Your task to perform on an android device: uninstall "Gmail" Image 0: 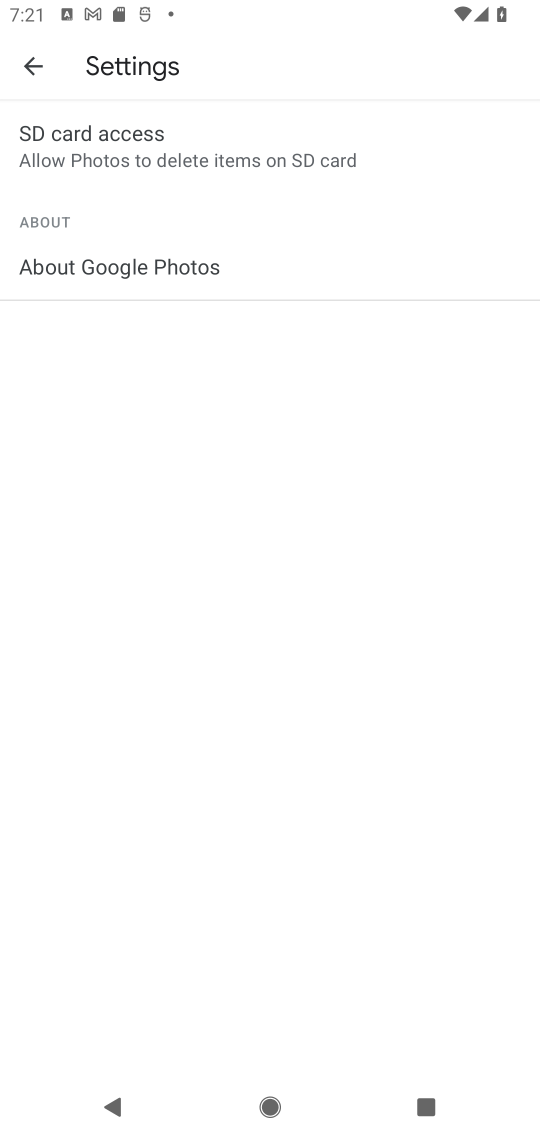
Step 0: press back button
Your task to perform on an android device: uninstall "Gmail" Image 1: 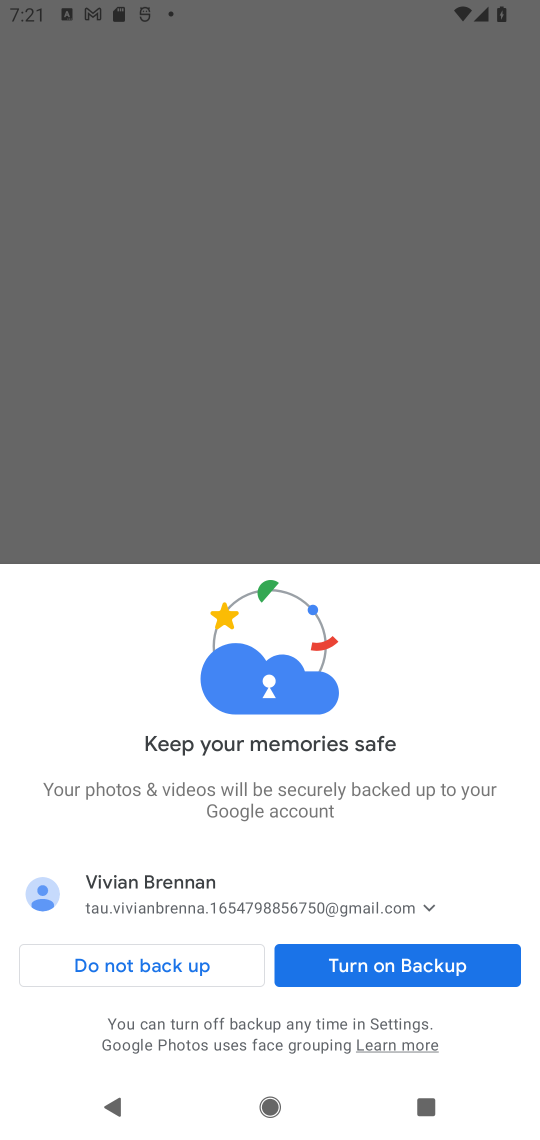
Step 1: press back button
Your task to perform on an android device: uninstall "Gmail" Image 2: 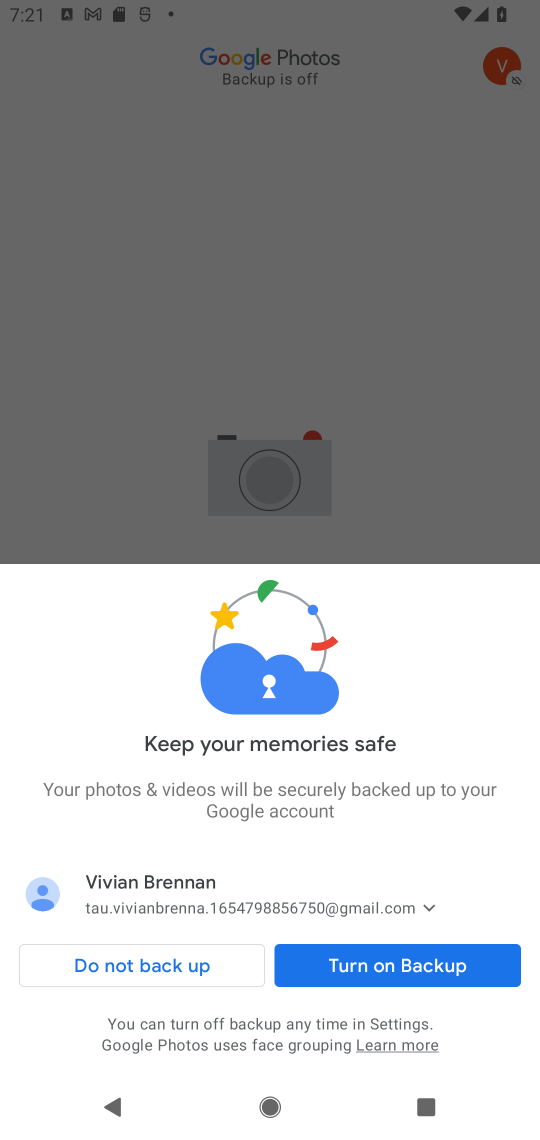
Step 2: press home button
Your task to perform on an android device: uninstall "Gmail" Image 3: 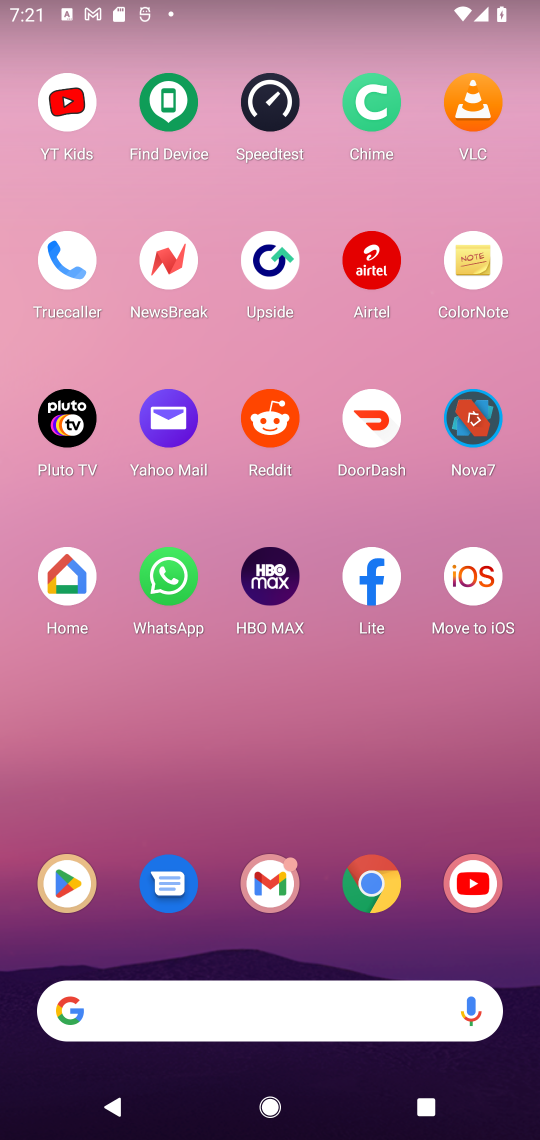
Step 3: click (87, 880)
Your task to perform on an android device: uninstall "Gmail" Image 4: 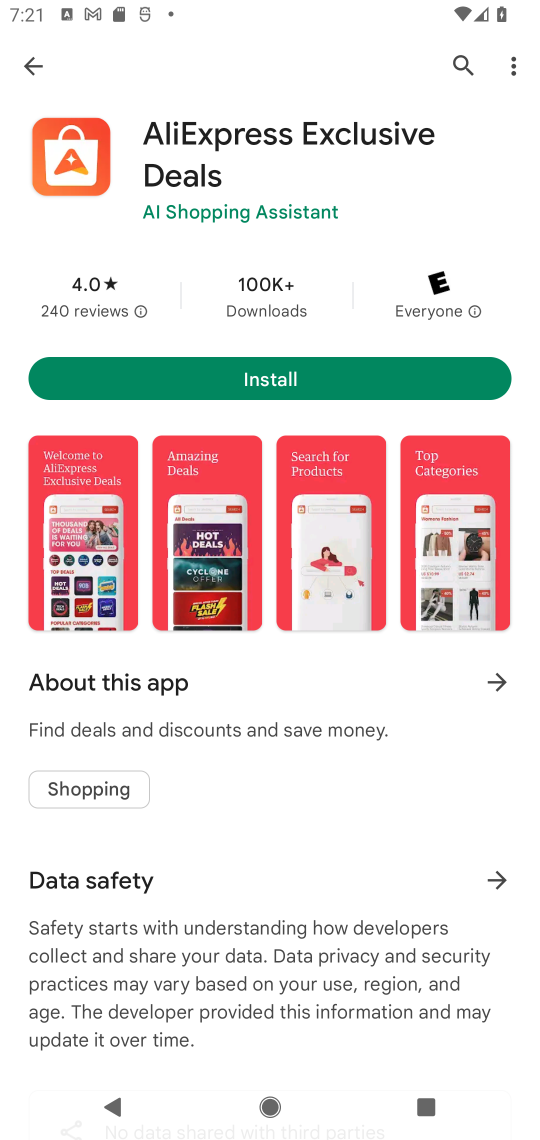
Step 4: click (452, 56)
Your task to perform on an android device: uninstall "Gmail" Image 5: 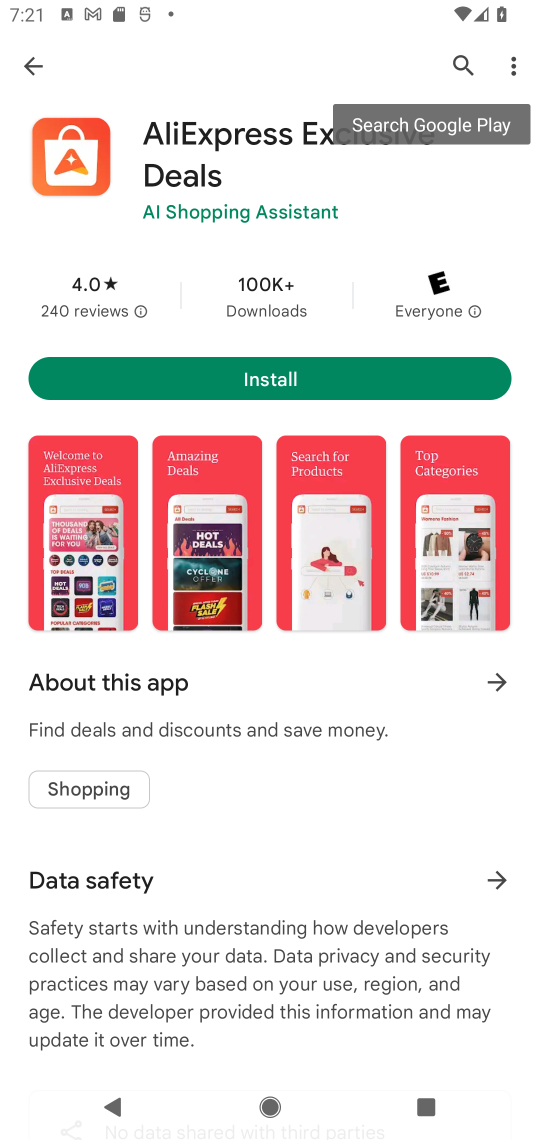
Step 5: click (472, 62)
Your task to perform on an android device: uninstall "Gmail" Image 6: 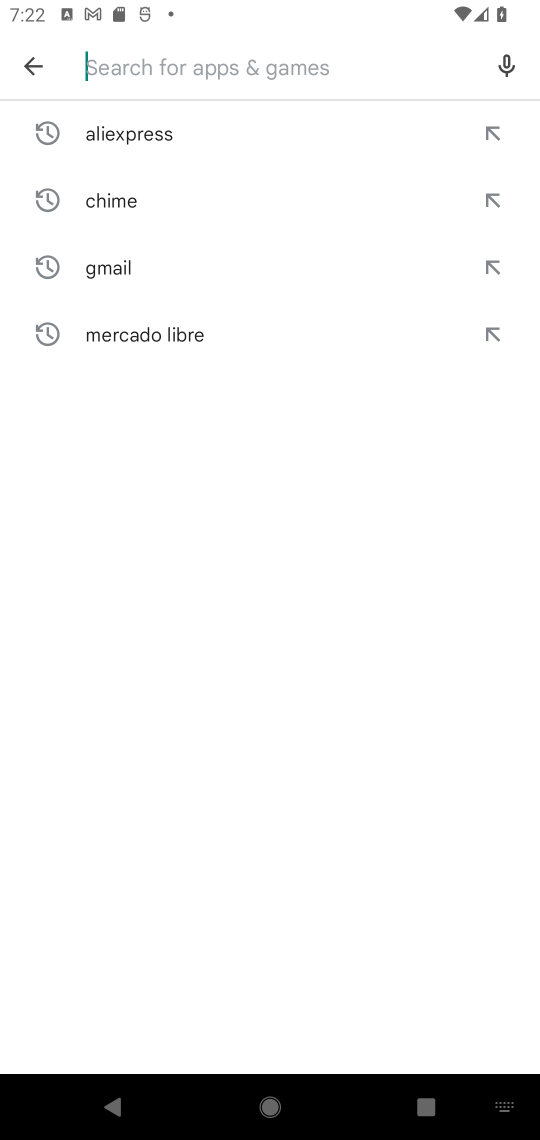
Step 6: click (145, 77)
Your task to perform on an android device: uninstall "Gmail" Image 7: 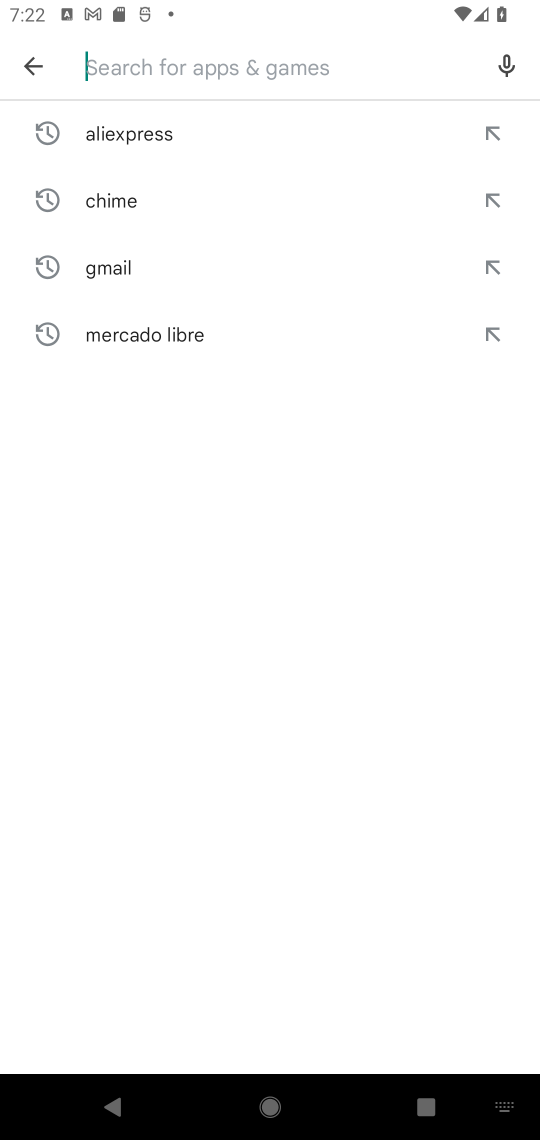
Step 7: click (107, 258)
Your task to perform on an android device: uninstall "Gmail" Image 8: 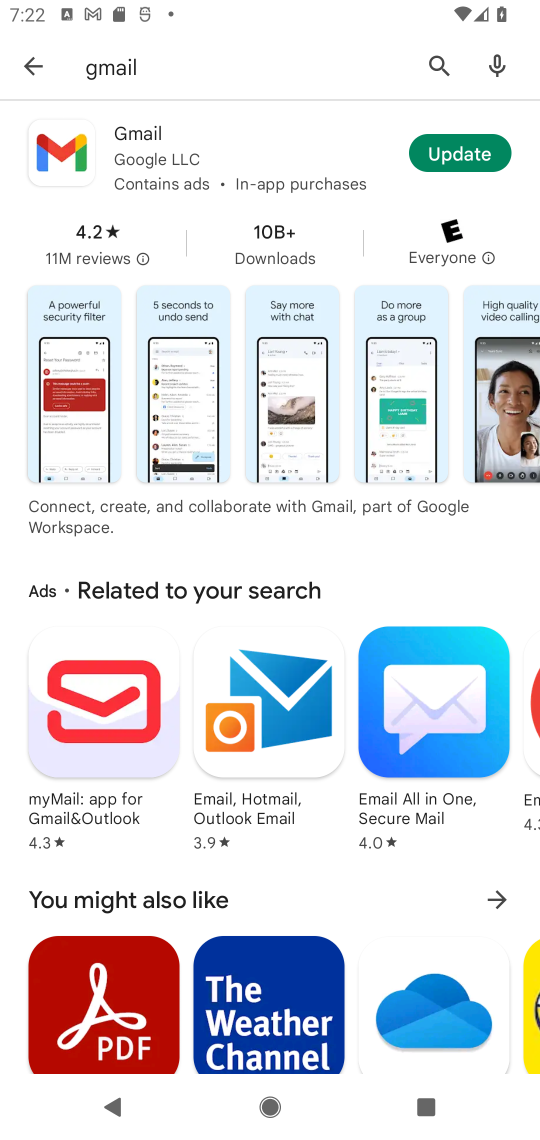
Step 8: click (170, 175)
Your task to perform on an android device: uninstall "Gmail" Image 9: 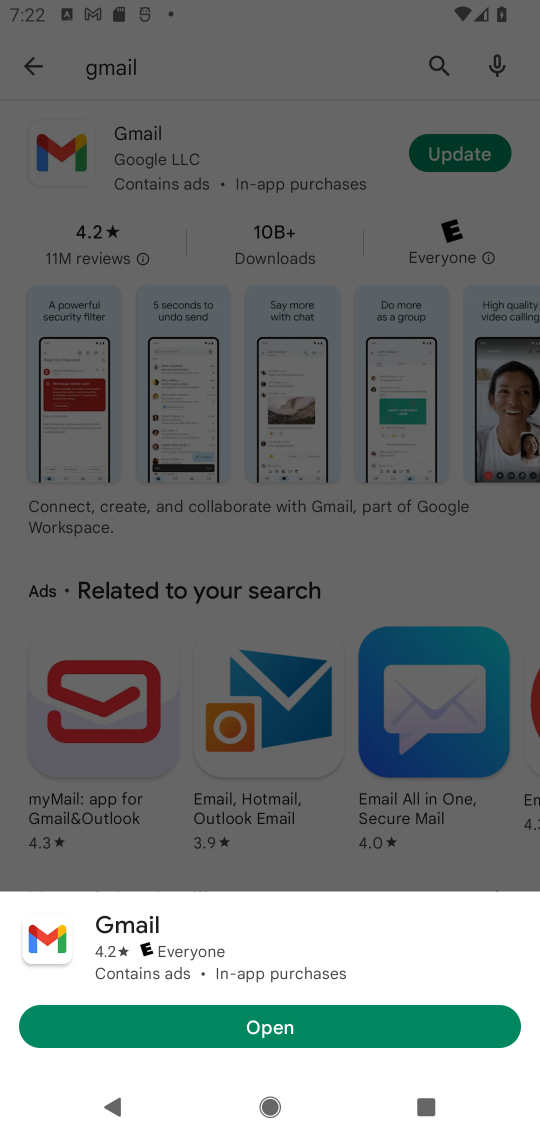
Step 9: task complete